Your task to perform on an android device: Toggle the flashlight Image 0: 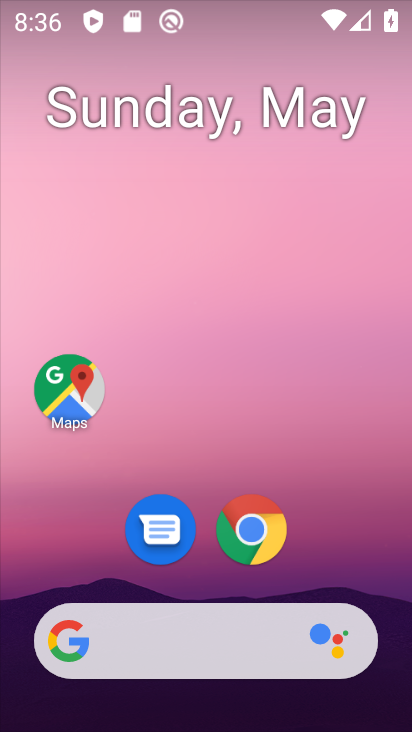
Step 0: drag from (351, 449) to (367, 151)
Your task to perform on an android device: Toggle the flashlight Image 1: 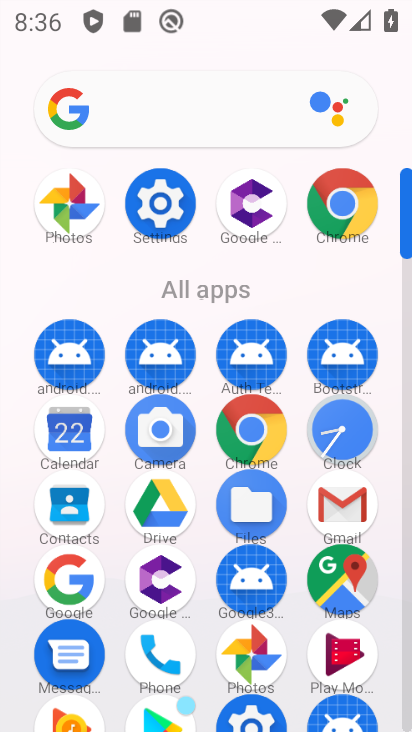
Step 1: click (159, 200)
Your task to perform on an android device: Toggle the flashlight Image 2: 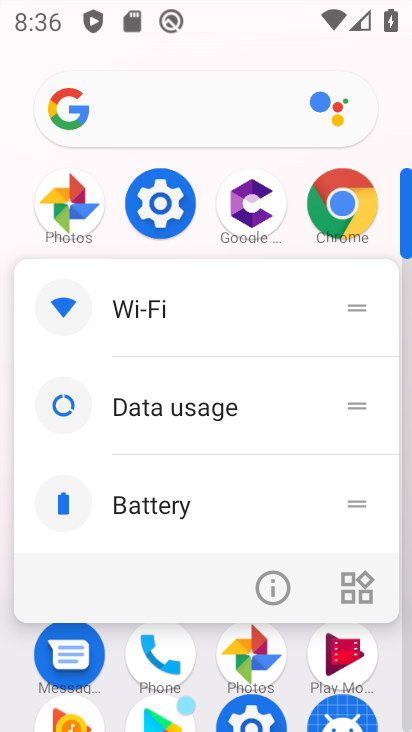
Step 2: click (159, 200)
Your task to perform on an android device: Toggle the flashlight Image 3: 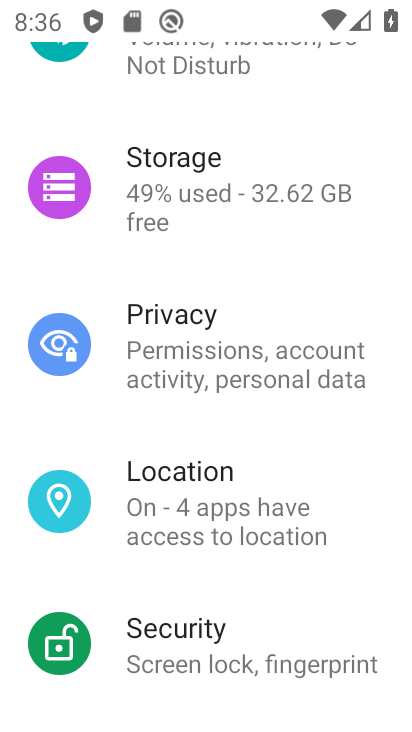
Step 3: drag from (217, 141) to (268, 566)
Your task to perform on an android device: Toggle the flashlight Image 4: 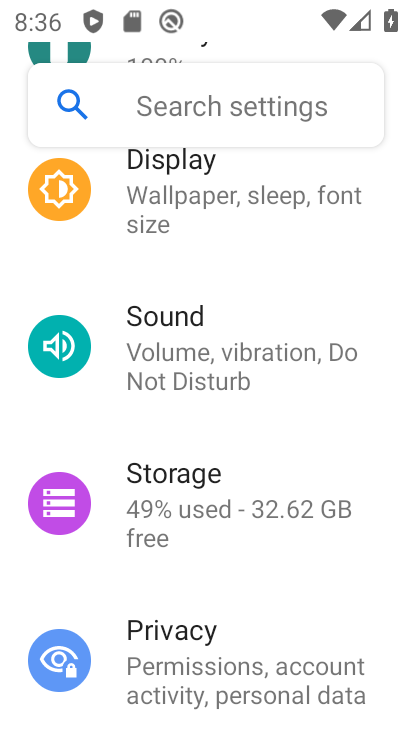
Step 4: click (208, 96)
Your task to perform on an android device: Toggle the flashlight Image 5: 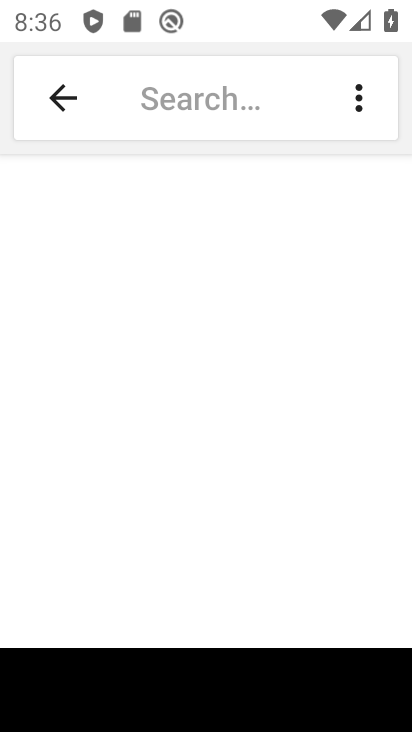
Step 5: type "flash"
Your task to perform on an android device: Toggle the flashlight Image 6: 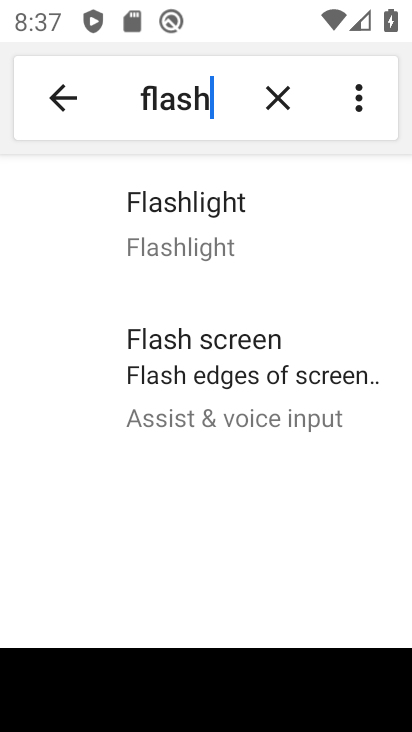
Step 6: task complete